Your task to perform on an android device: Add "logitech g933" to the cart on bestbuy Image 0: 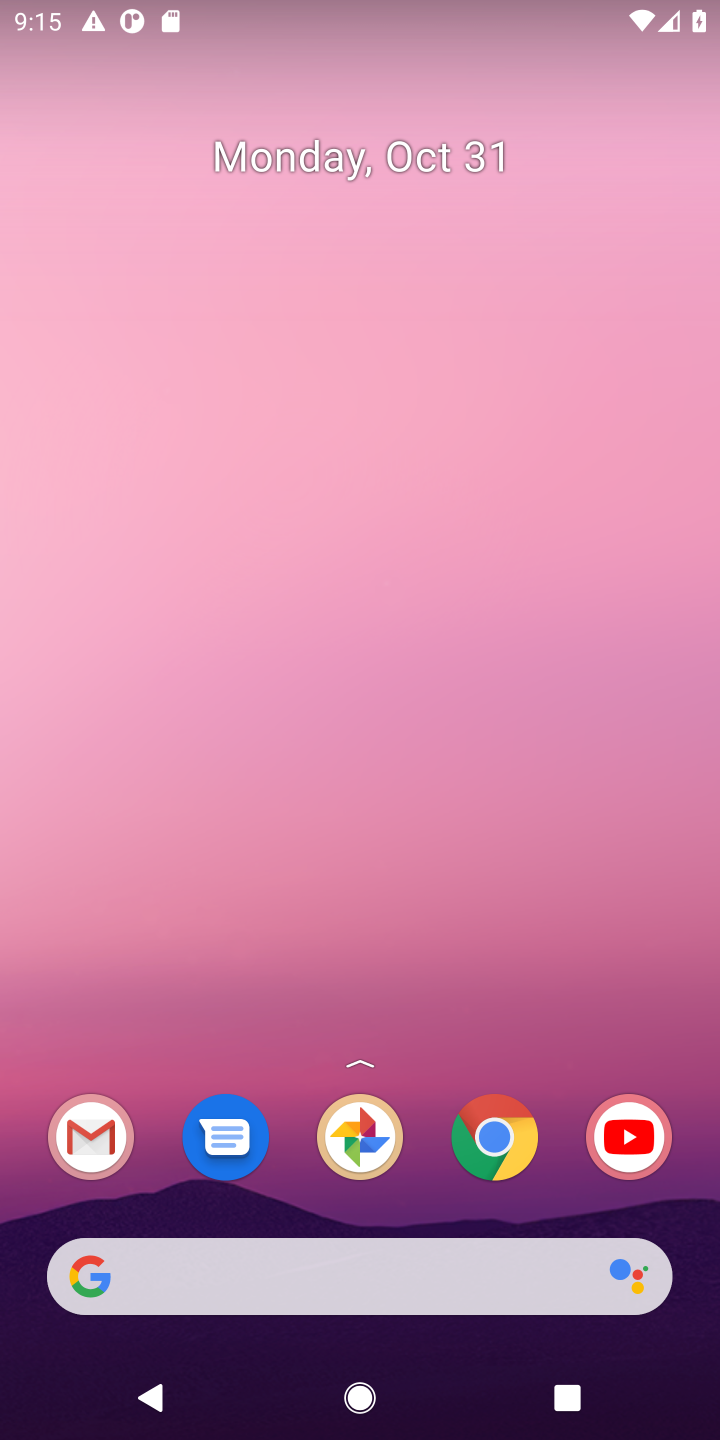
Step 0: click (494, 1169)
Your task to perform on an android device: Add "logitech g933" to the cart on bestbuy Image 1: 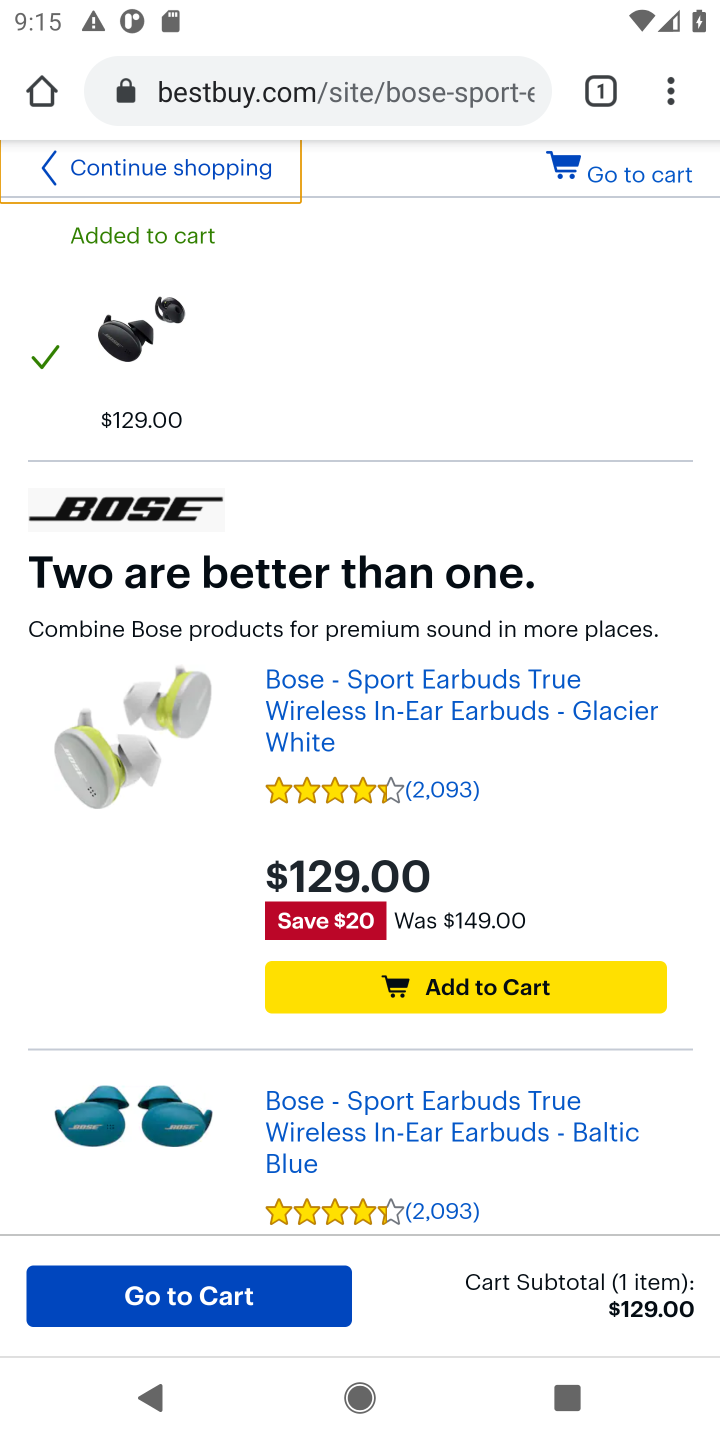
Step 1: press back button
Your task to perform on an android device: Add "logitech g933" to the cart on bestbuy Image 2: 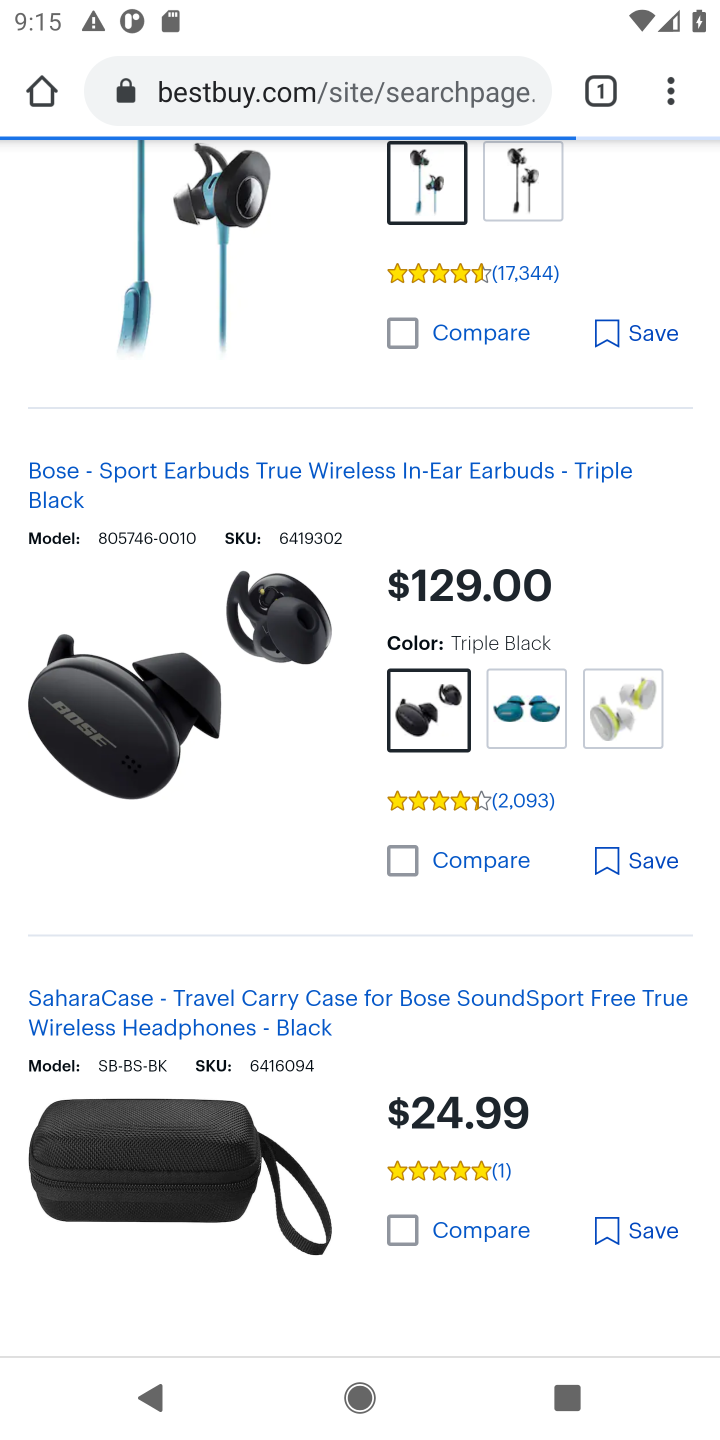
Step 2: drag from (333, 264) to (371, 1134)
Your task to perform on an android device: Add "logitech g933" to the cart on bestbuy Image 3: 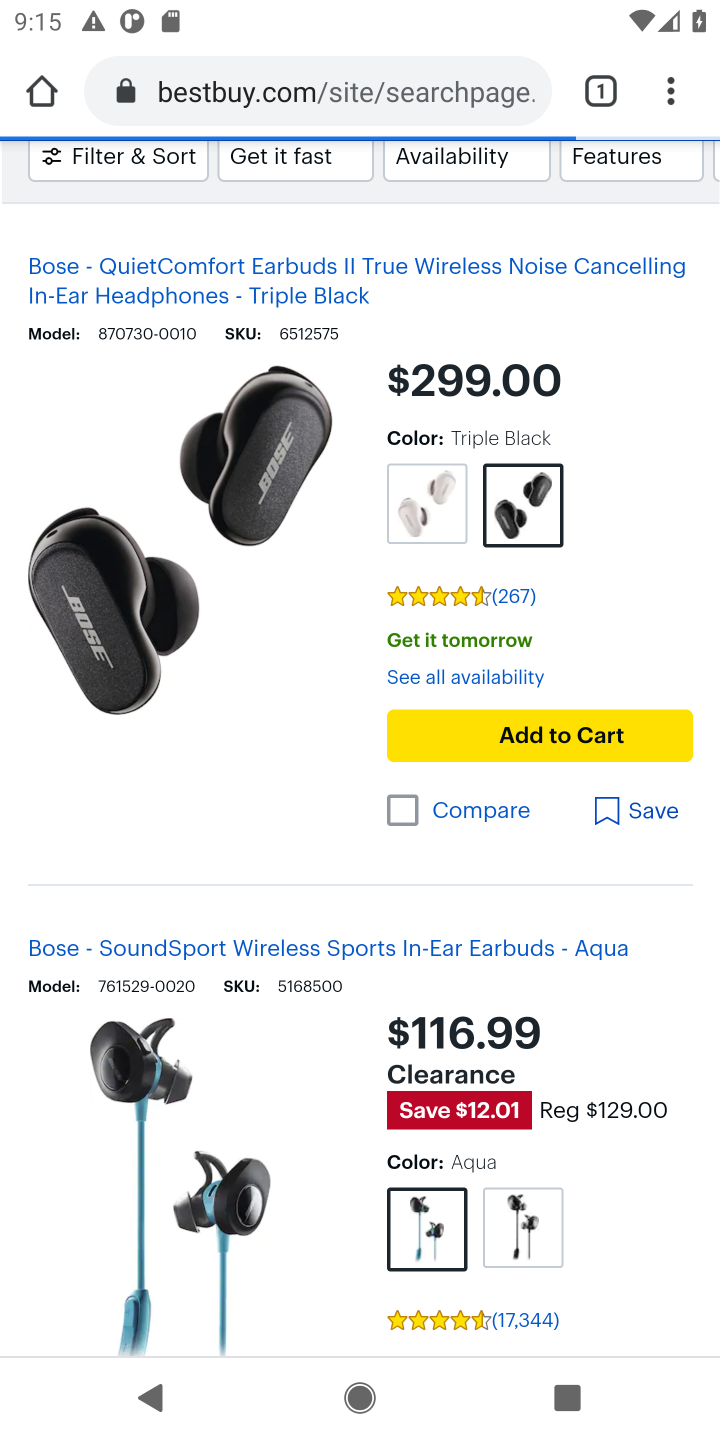
Step 3: drag from (371, 349) to (416, 1139)
Your task to perform on an android device: Add "logitech g933" to the cart on bestbuy Image 4: 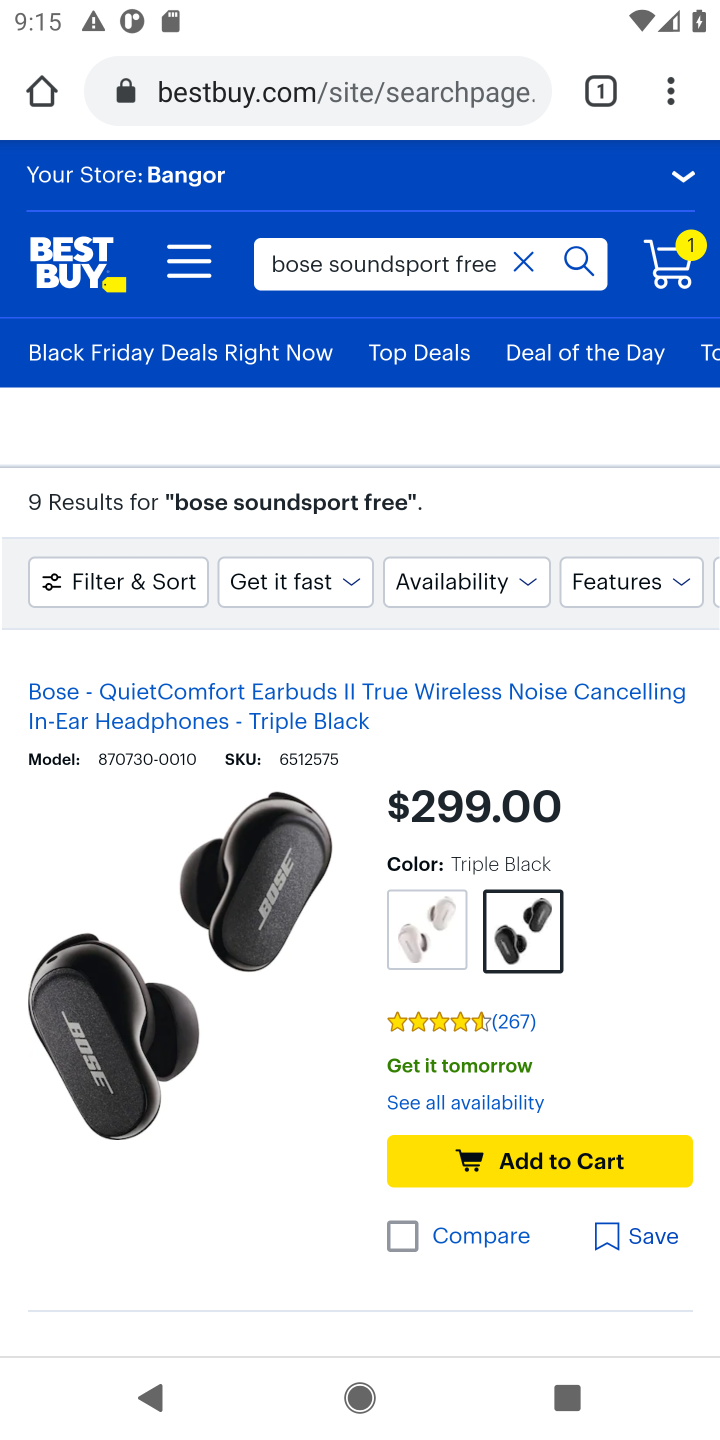
Step 4: click (515, 267)
Your task to perform on an android device: Add "logitech g933" to the cart on bestbuy Image 5: 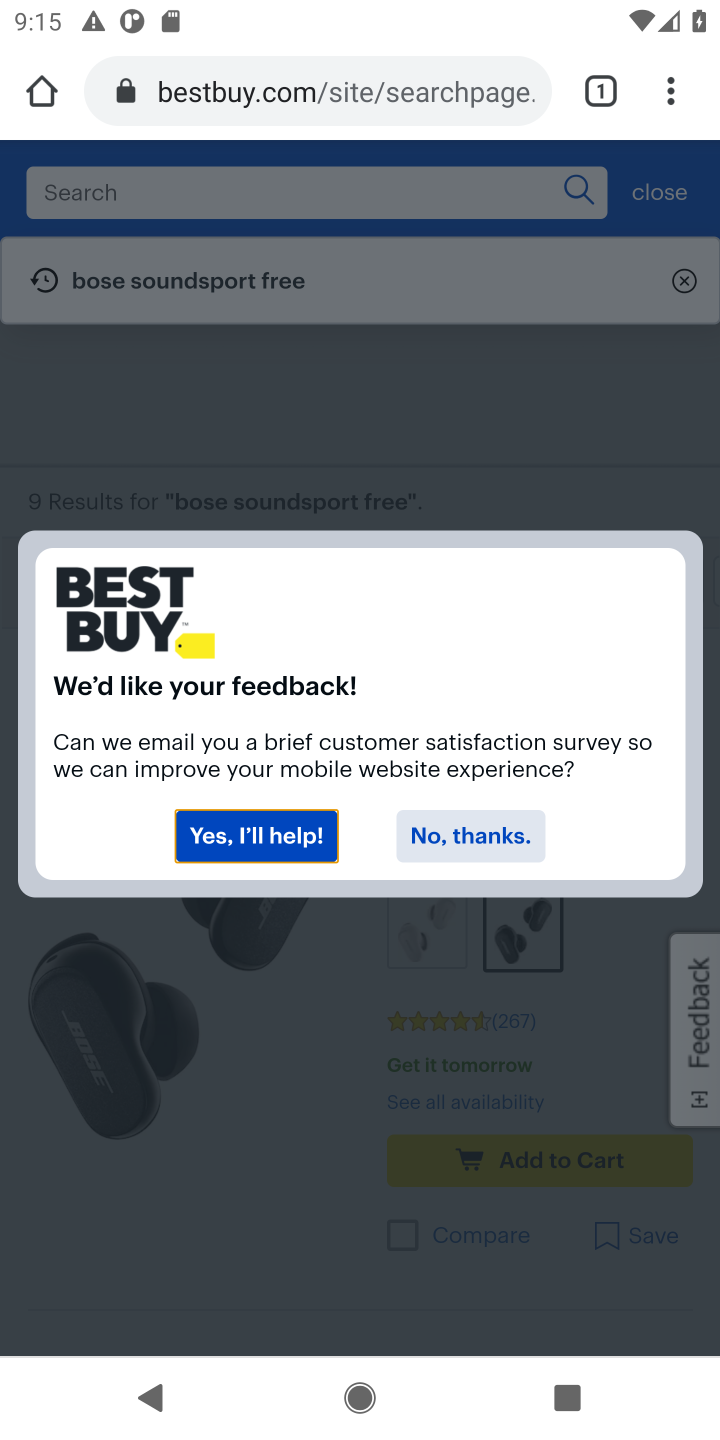
Step 5: type "logitech g933"
Your task to perform on an android device: Add "logitech g933" to the cart on bestbuy Image 6: 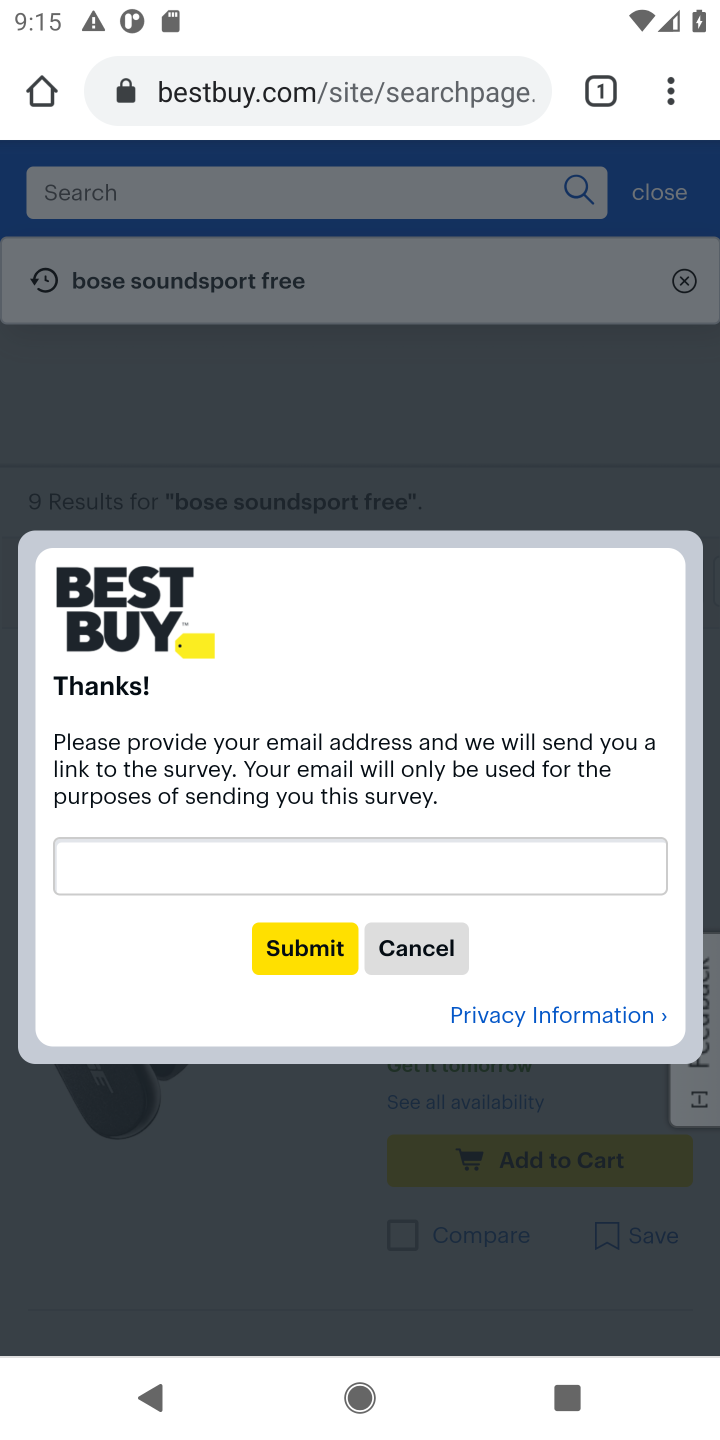
Step 6: click (408, 951)
Your task to perform on an android device: Add "logitech g933" to the cart on bestbuy Image 7: 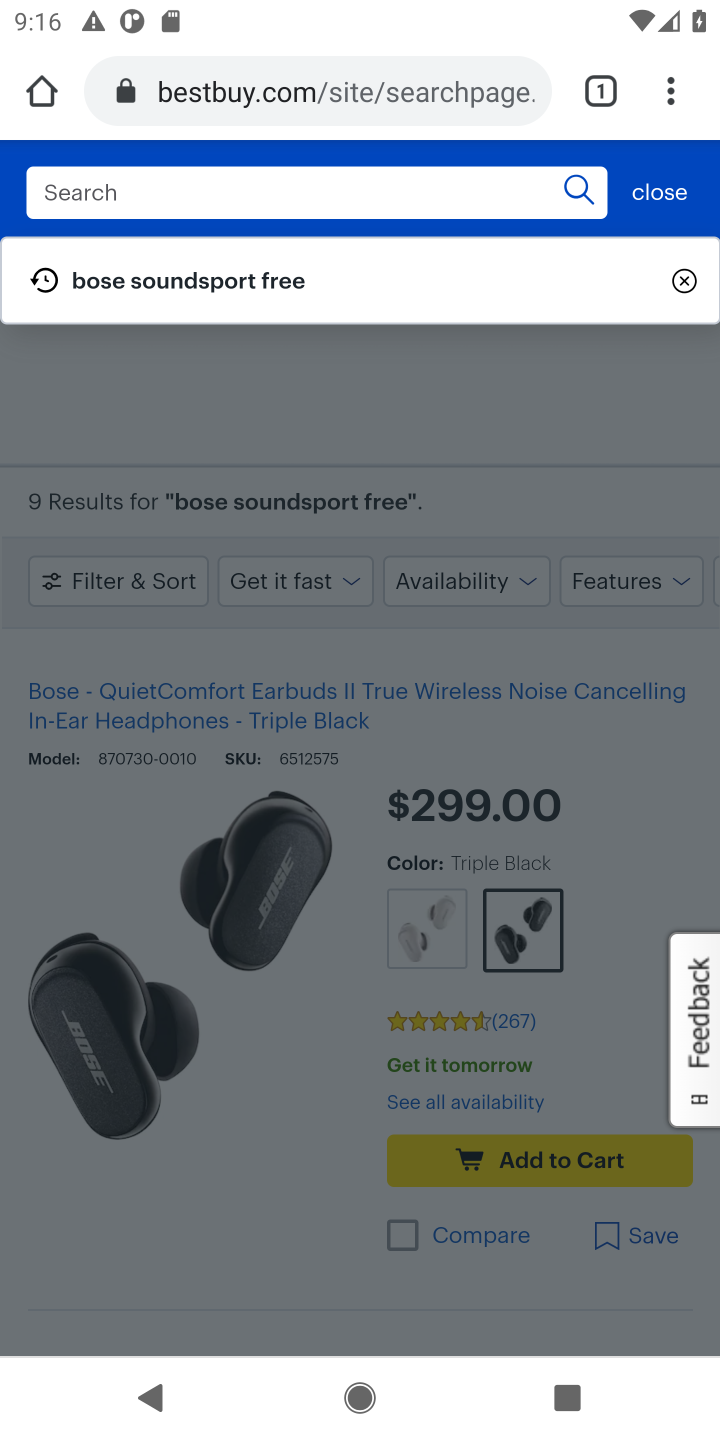
Step 7: click (384, 947)
Your task to perform on an android device: Add "logitech g933" to the cart on bestbuy Image 8: 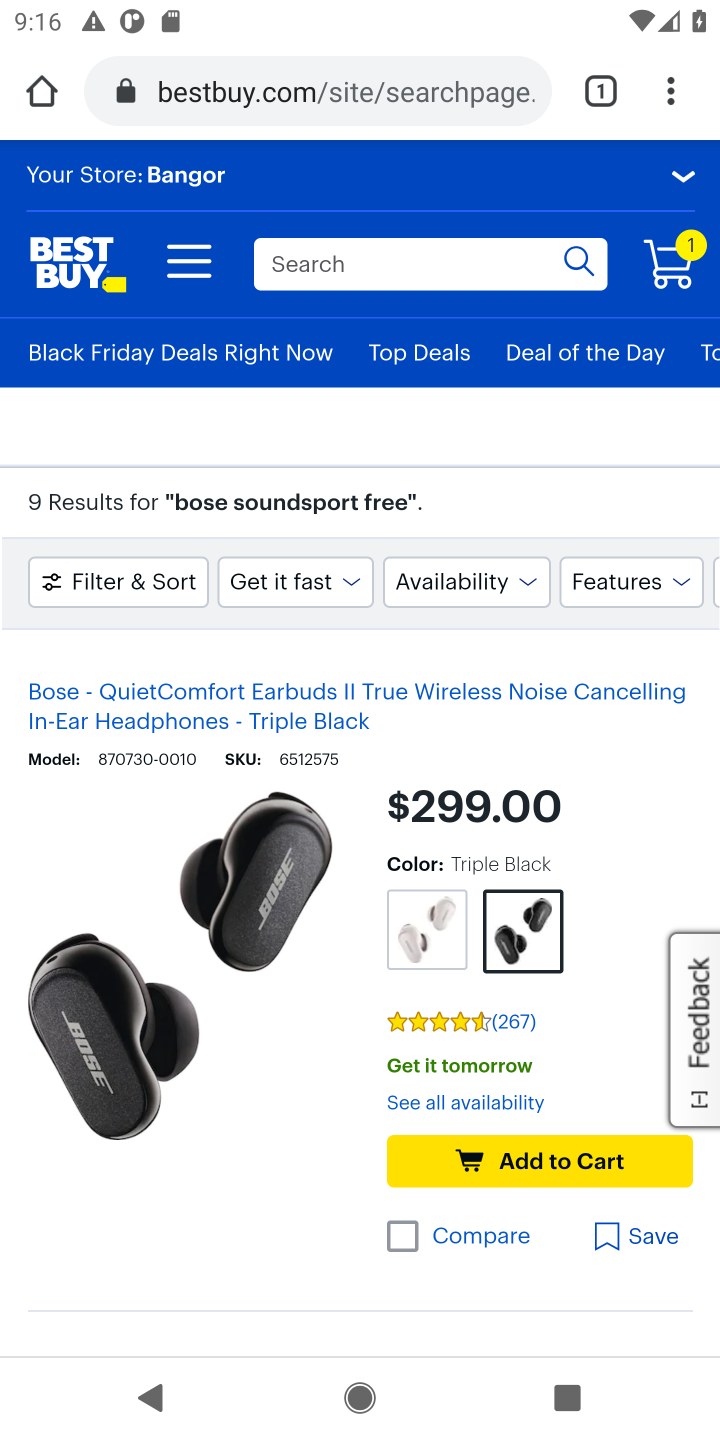
Step 8: click (300, 257)
Your task to perform on an android device: Add "logitech g933" to the cart on bestbuy Image 9: 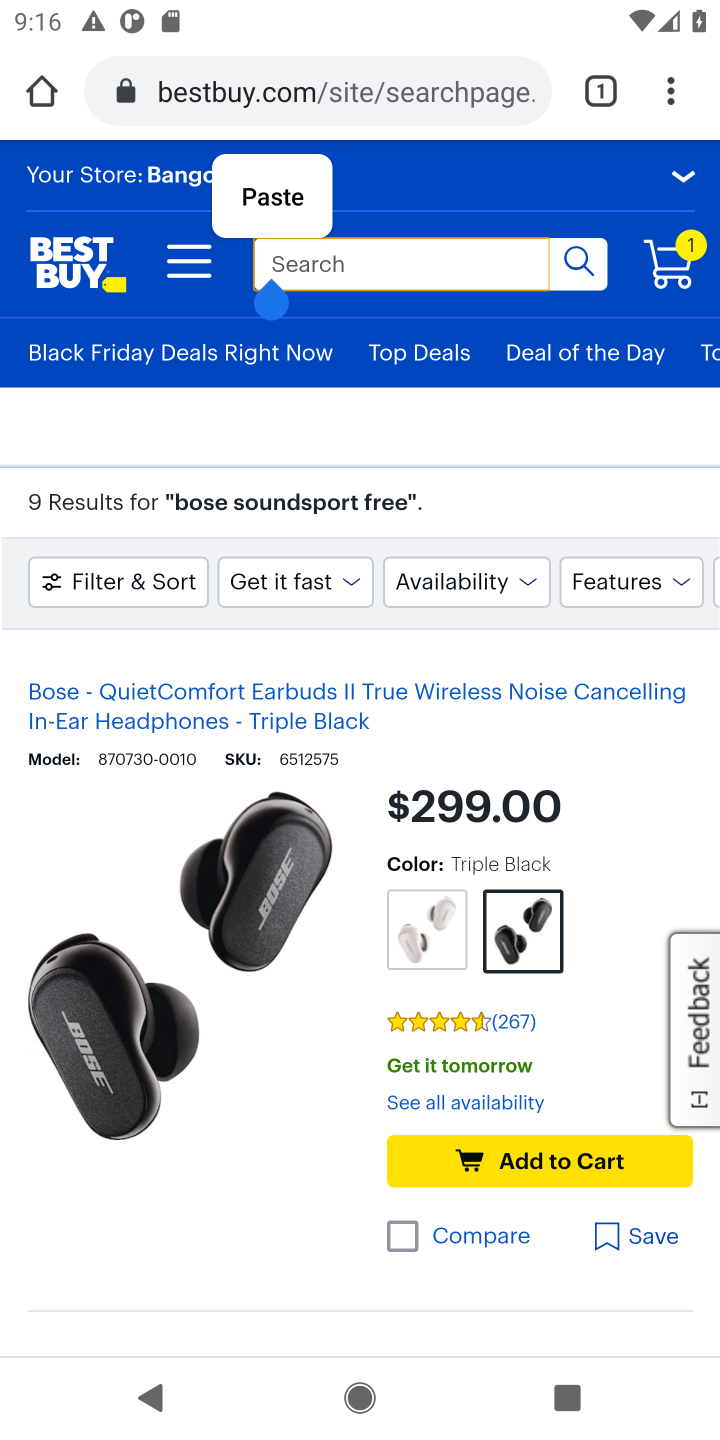
Step 9: type "logitech g933"
Your task to perform on an android device: Add "logitech g933" to the cart on bestbuy Image 10: 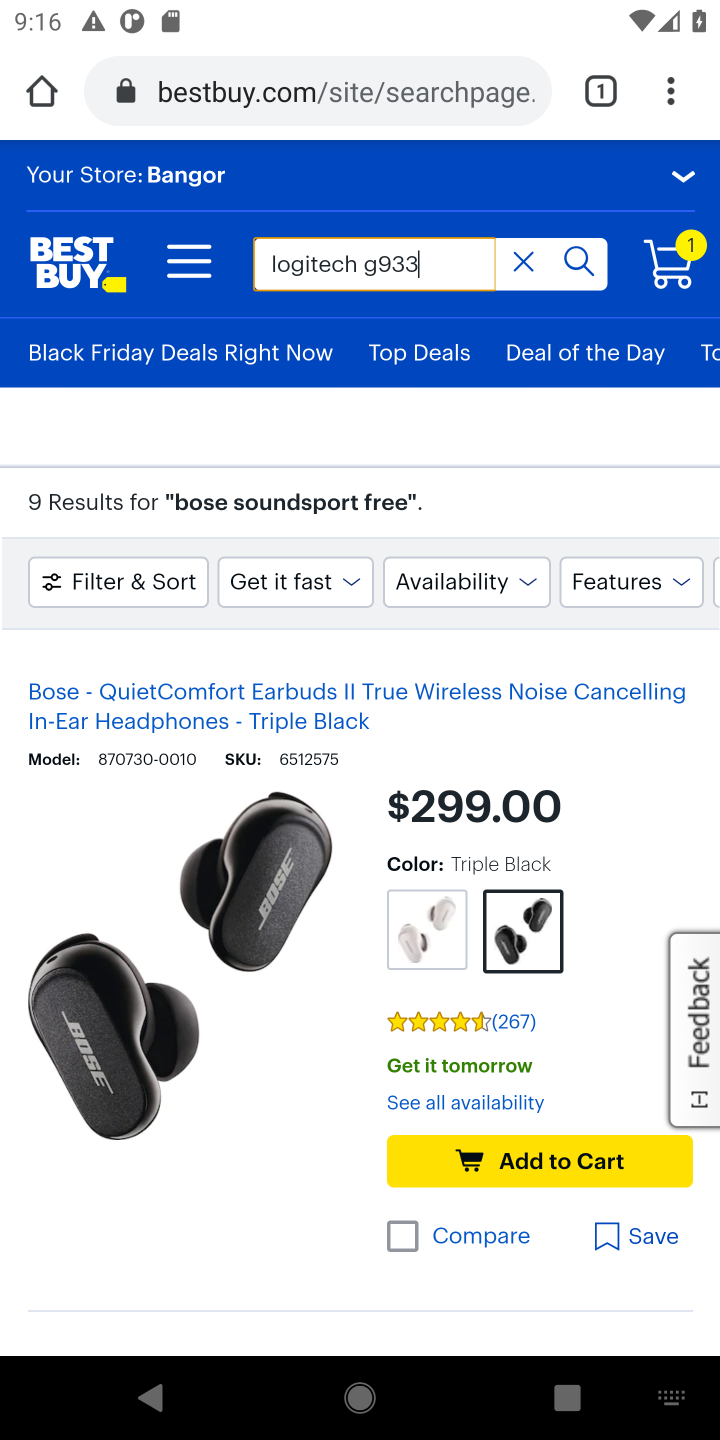
Step 10: click (577, 263)
Your task to perform on an android device: Add "logitech g933" to the cart on bestbuy Image 11: 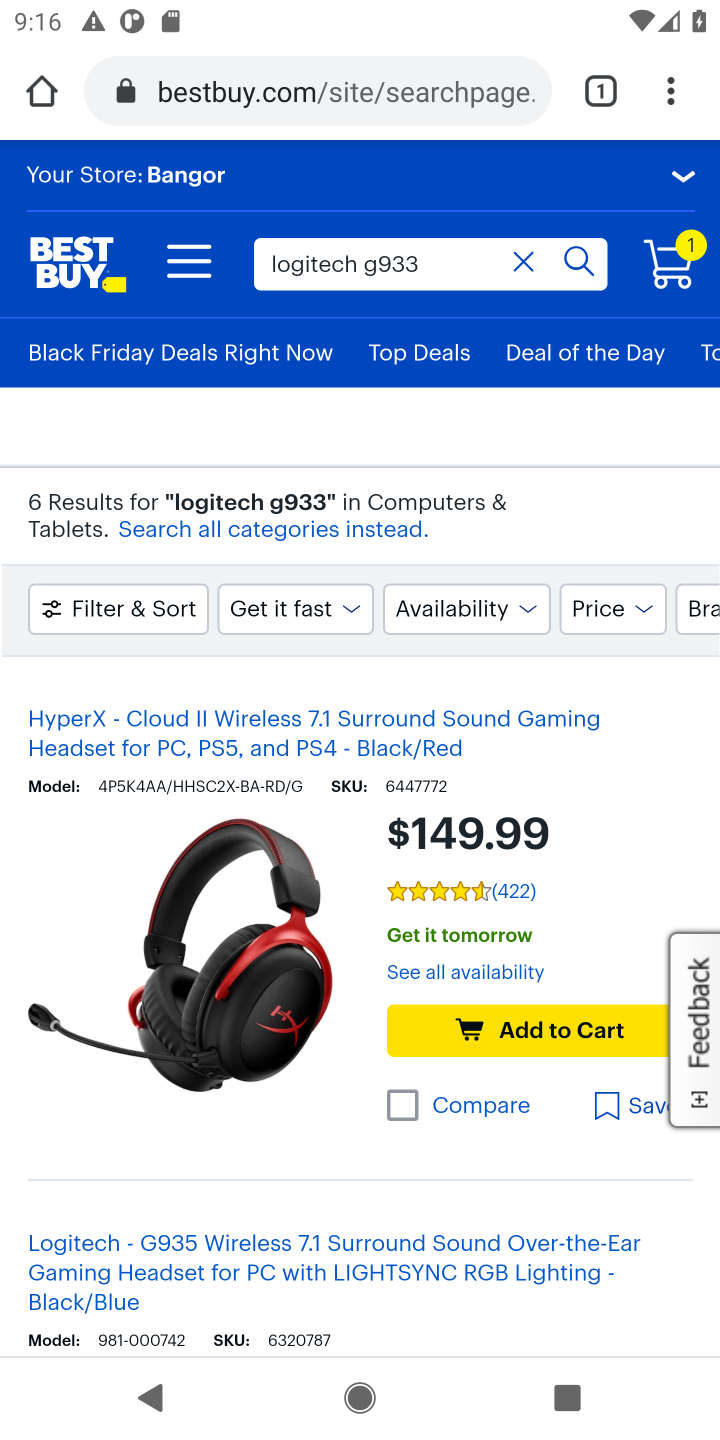
Step 11: click (257, 509)
Your task to perform on an android device: Add "logitech g933" to the cart on bestbuy Image 12: 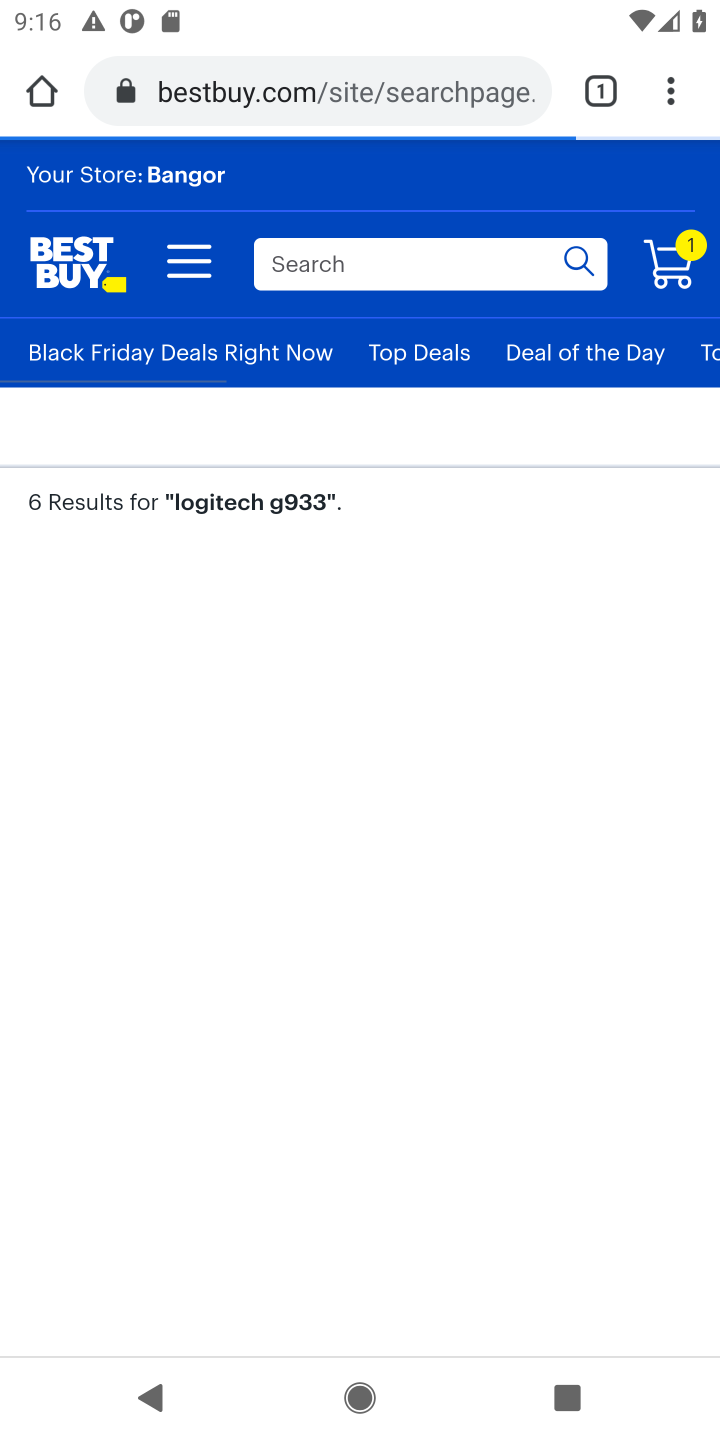
Step 12: drag from (219, 933) to (226, 1083)
Your task to perform on an android device: Add "logitech g933" to the cart on bestbuy Image 13: 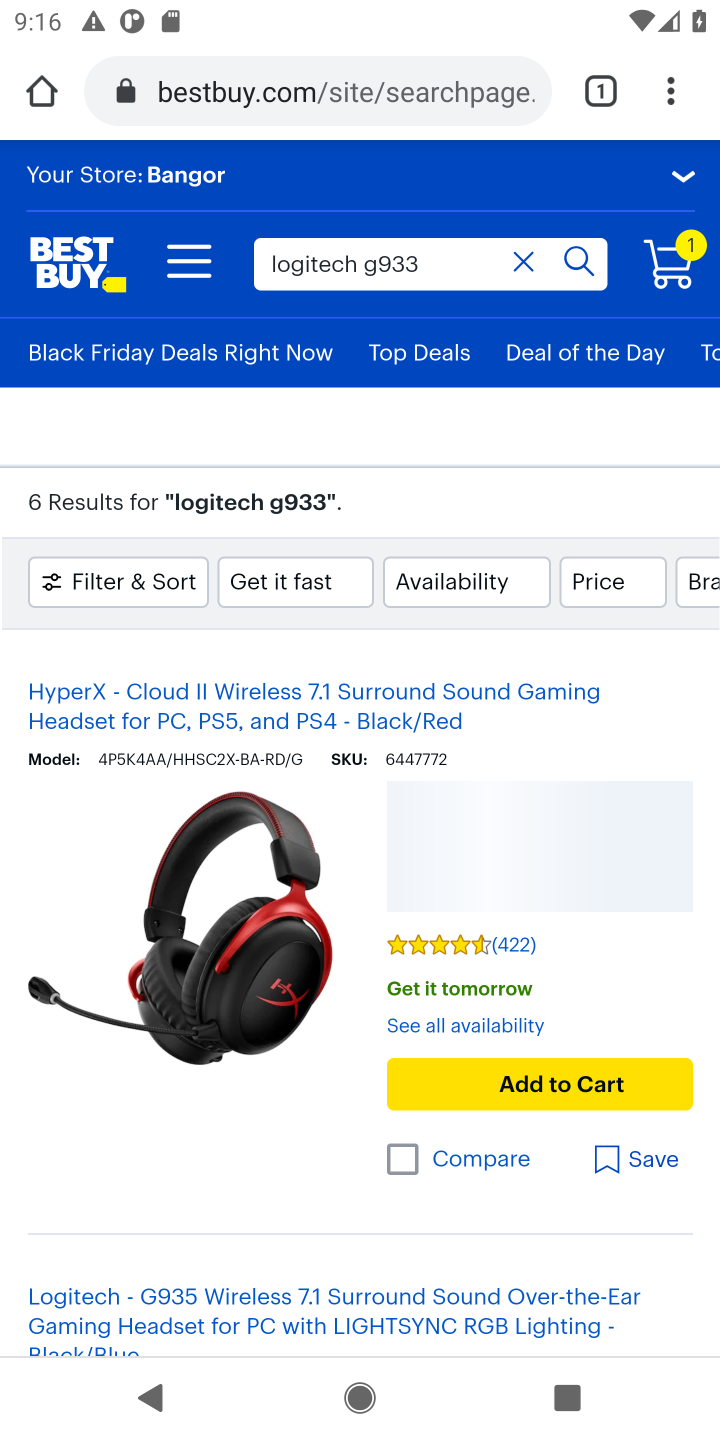
Step 13: press back button
Your task to perform on an android device: Add "logitech g933" to the cart on bestbuy Image 14: 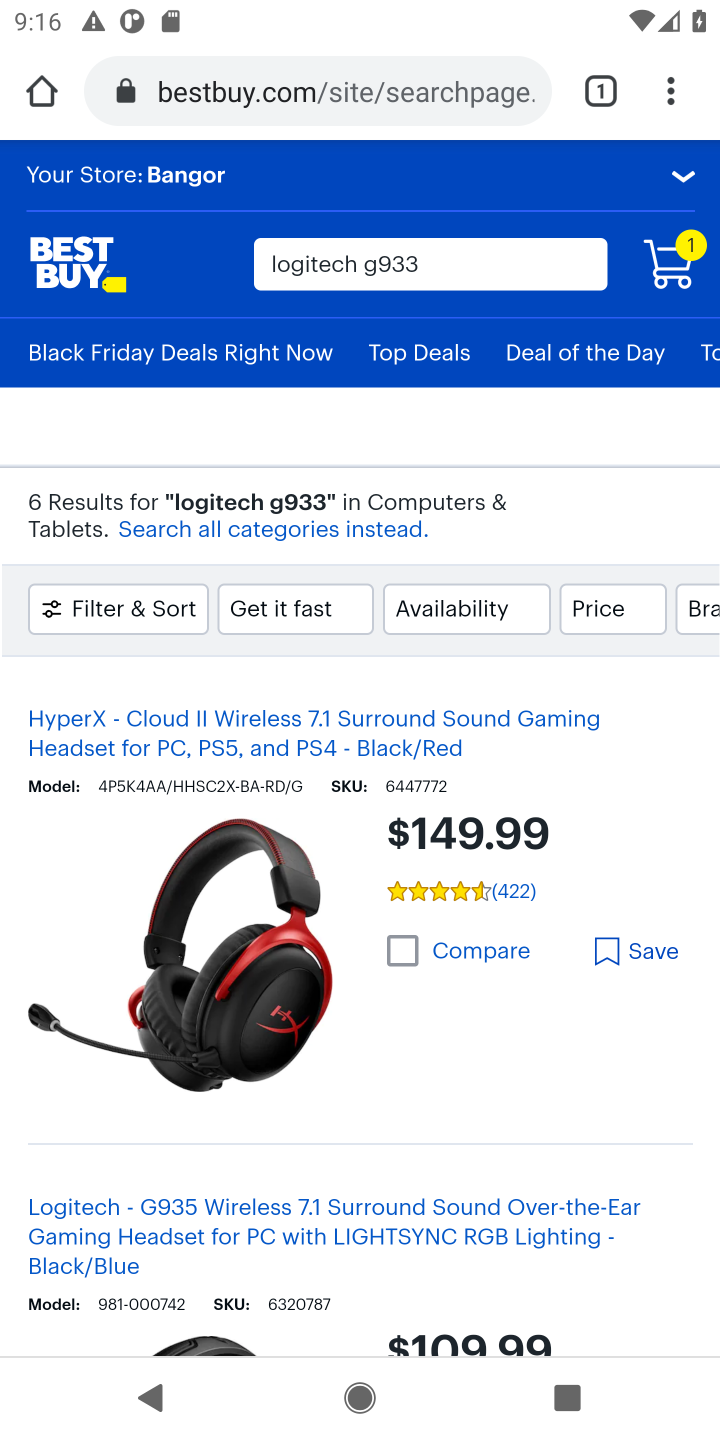
Step 14: click (385, 264)
Your task to perform on an android device: Add "logitech g933" to the cart on bestbuy Image 15: 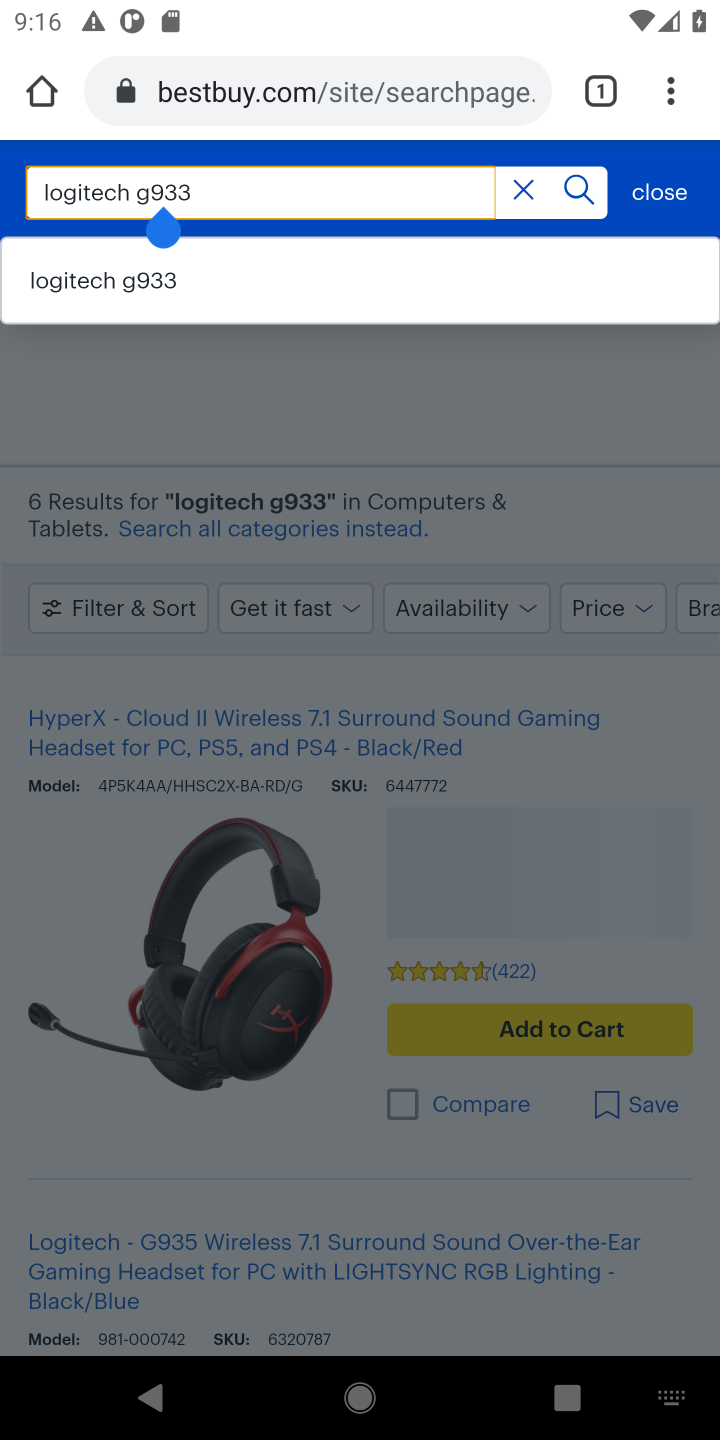
Step 15: click (568, 199)
Your task to perform on an android device: Add "logitech g933" to the cart on bestbuy Image 16: 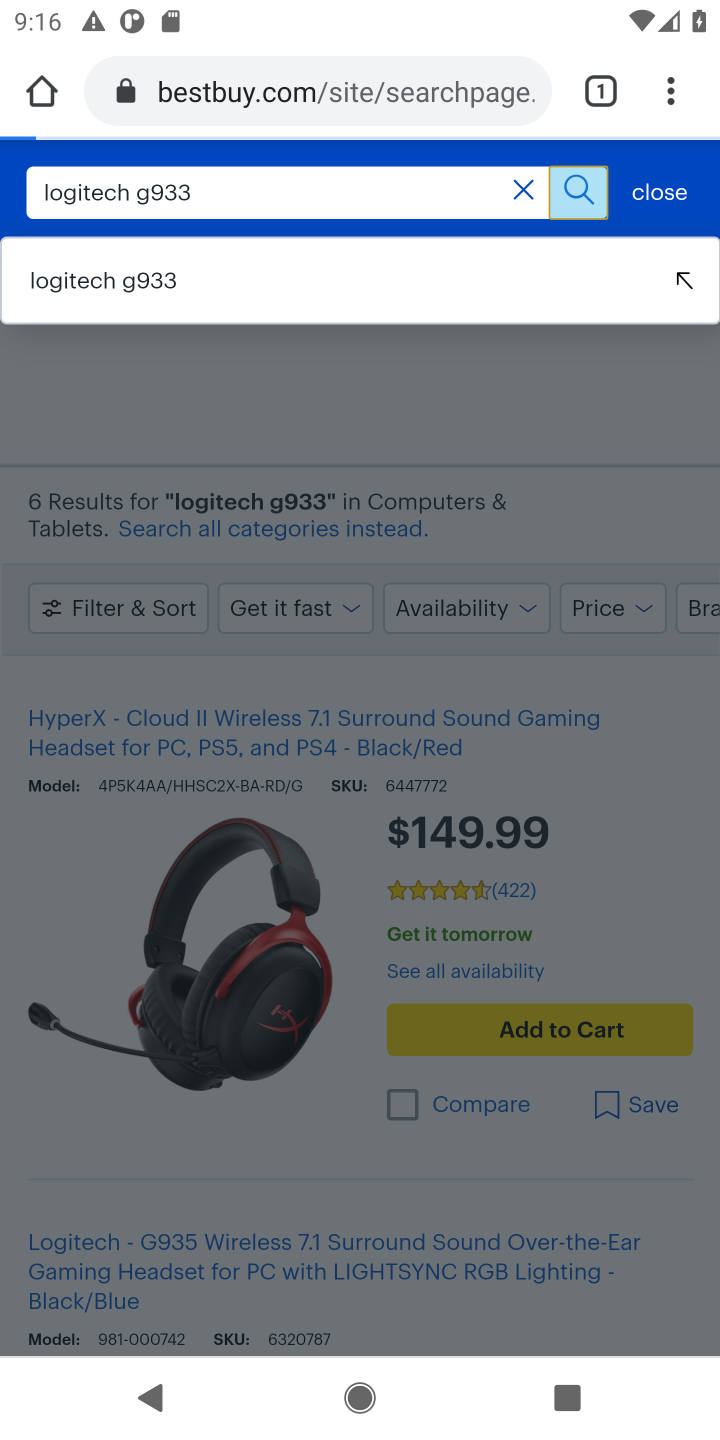
Step 16: click (143, 281)
Your task to perform on an android device: Add "logitech g933" to the cart on bestbuy Image 17: 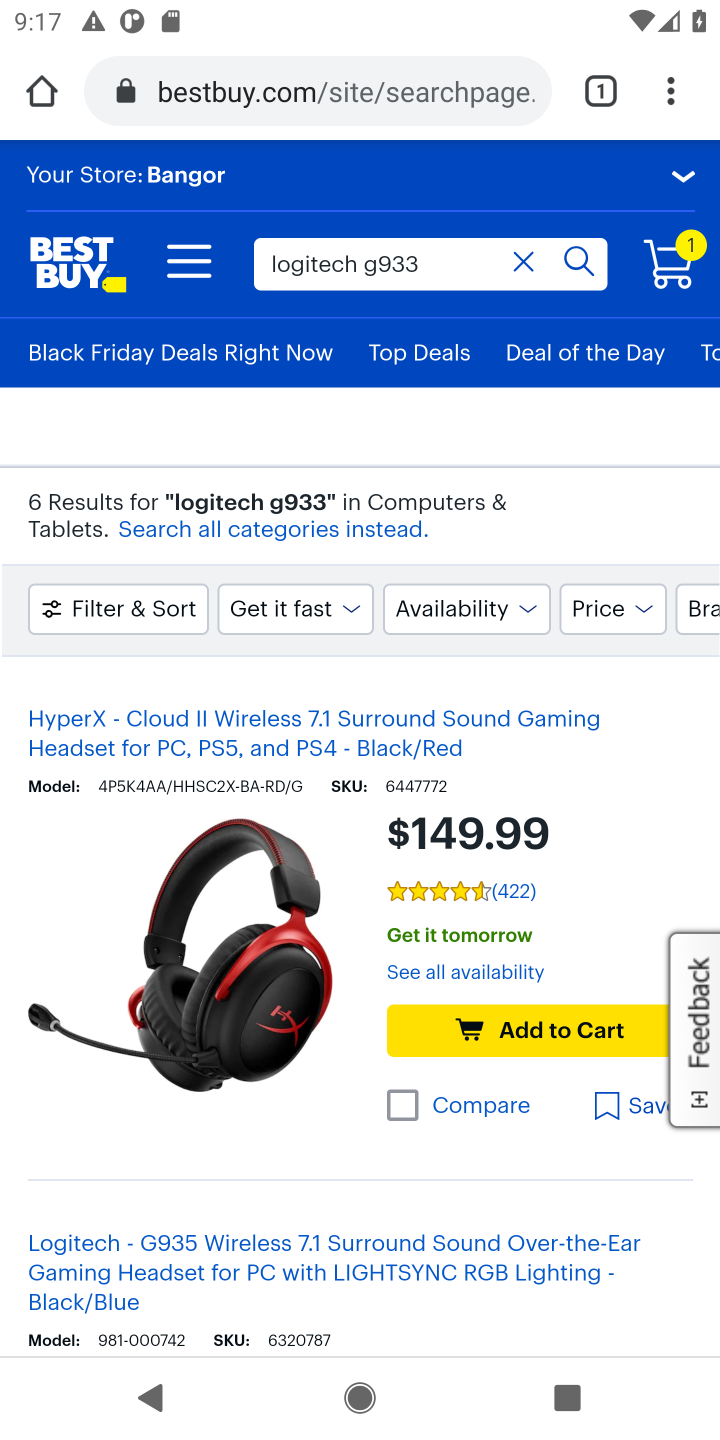
Step 17: task complete